Your task to perform on an android device: Open location settings Image 0: 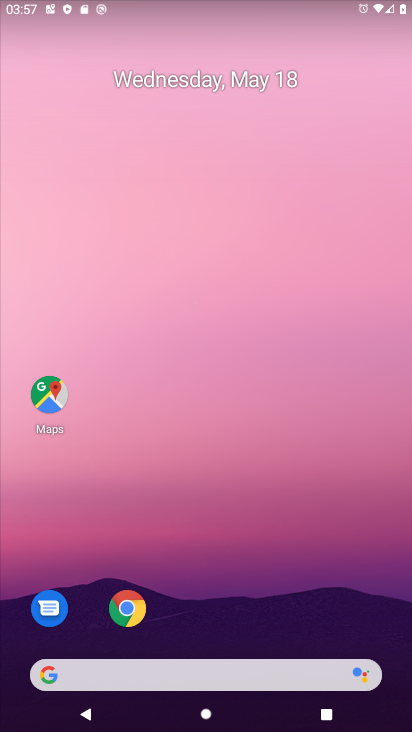
Step 0: drag from (215, 591) to (263, 67)
Your task to perform on an android device: Open location settings Image 1: 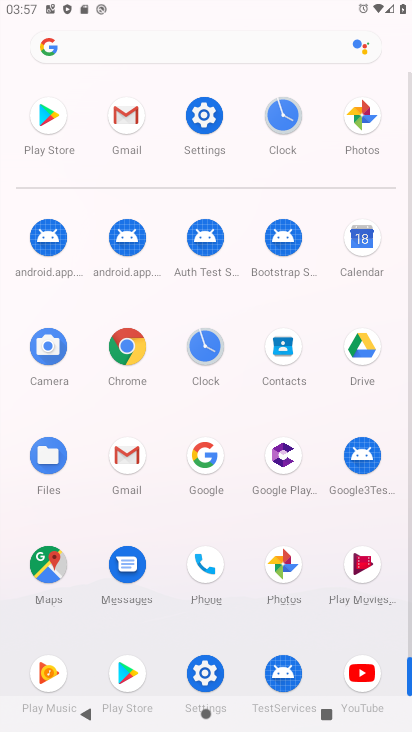
Step 1: click (201, 104)
Your task to perform on an android device: Open location settings Image 2: 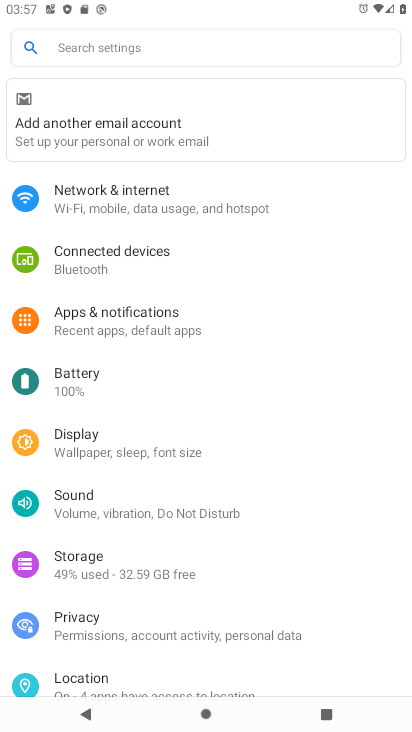
Step 2: click (68, 681)
Your task to perform on an android device: Open location settings Image 3: 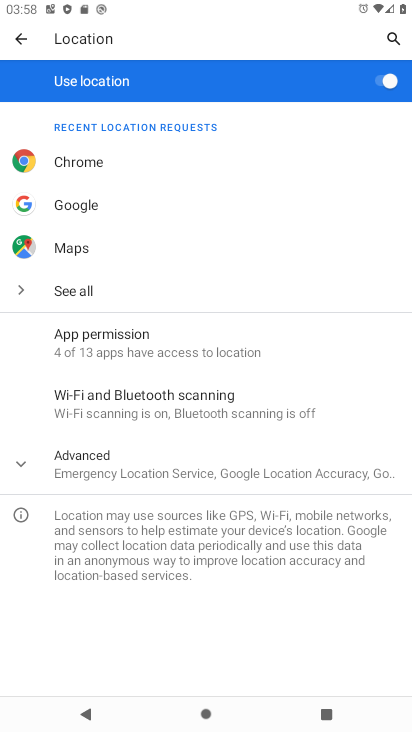
Step 3: task complete